Your task to perform on an android device: Open eBay Image 0: 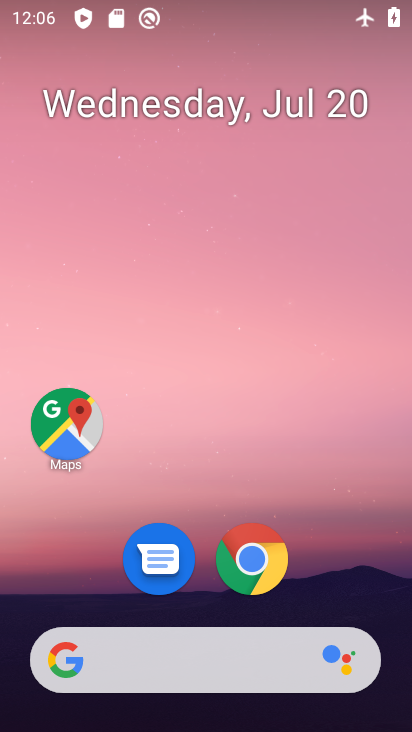
Step 0: drag from (378, 584) to (379, 102)
Your task to perform on an android device: Open eBay Image 1: 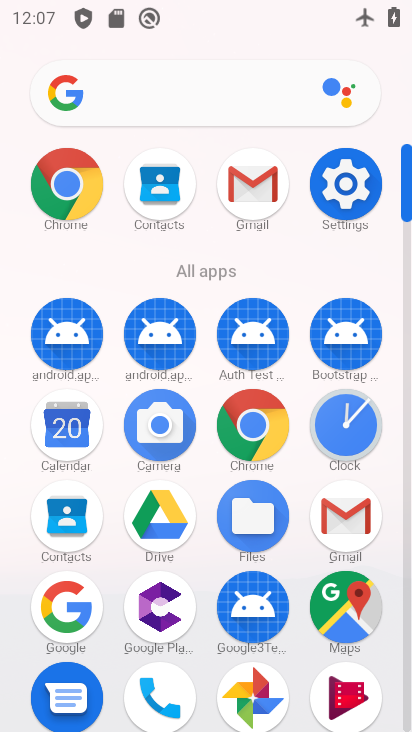
Step 1: click (261, 425)
Your task to perform on an android device: Open eBay Image 2: 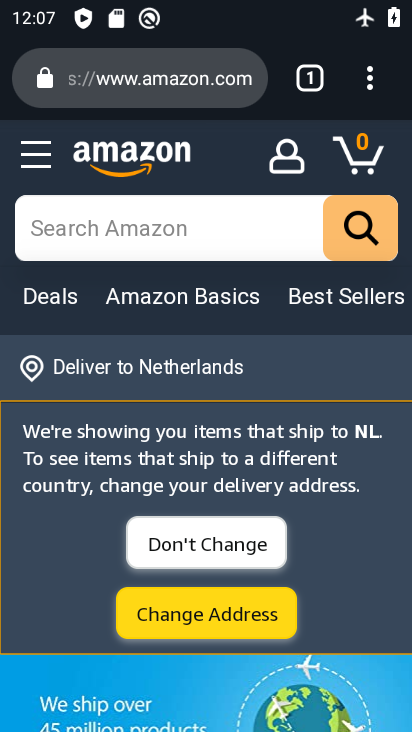
Step 2: click (184, 83)
Your task to perform on an android device: Open eBay Image 3: 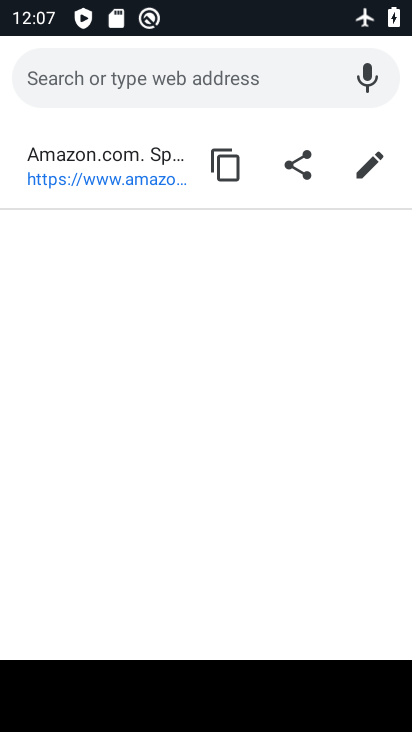
Step 3: type "ebay"
Your task to perform on an android device: Open eBay Image 4: 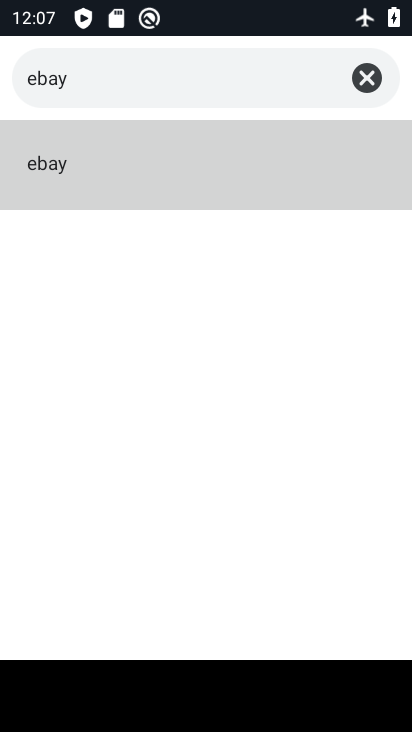
Step 4: click (167, 171)
Your task to perform on an android device: Open eBay Image 5: 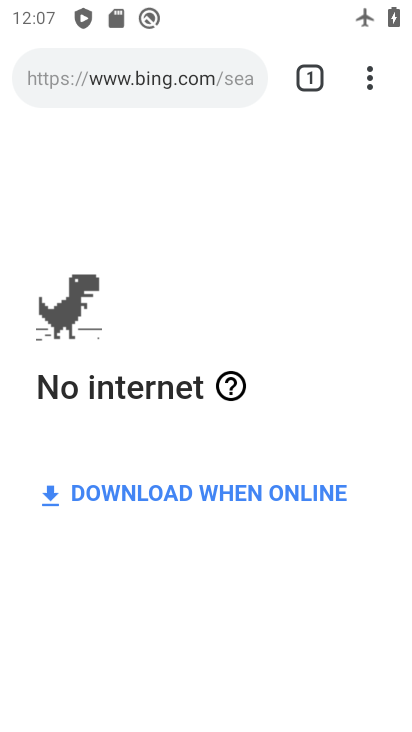
Step 5: task complete